Your task to perform on an android device: When is my next meeting? Image 0: 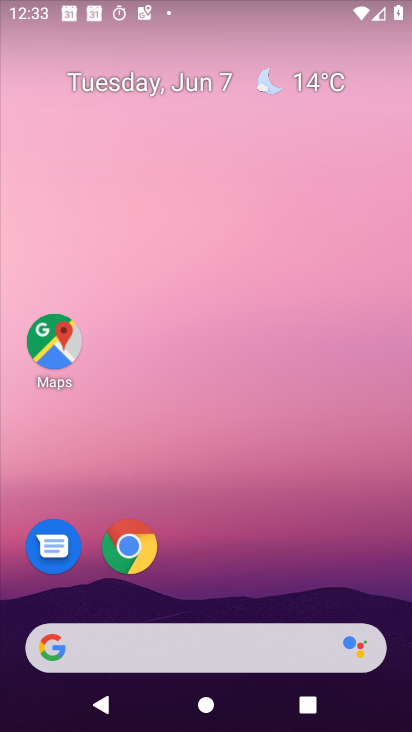
Step 0: drag from (230, 545) to (321, 125)
Your task to perform on an android device: When is my next meeting? Image 1: 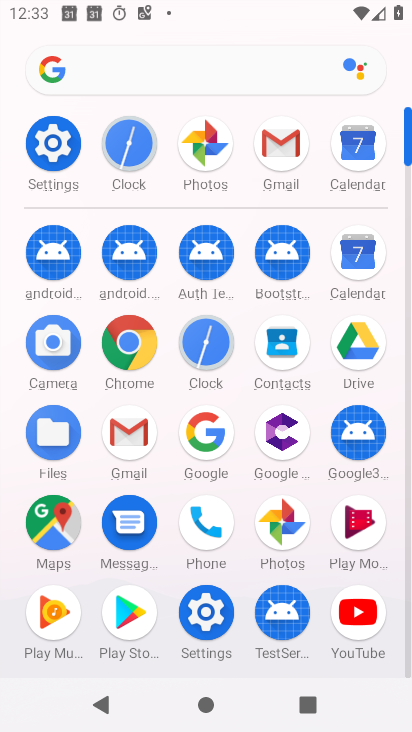
Step 1: click (376, 251)
Your task to perform on an android device: When is my next meeting? Image 2: 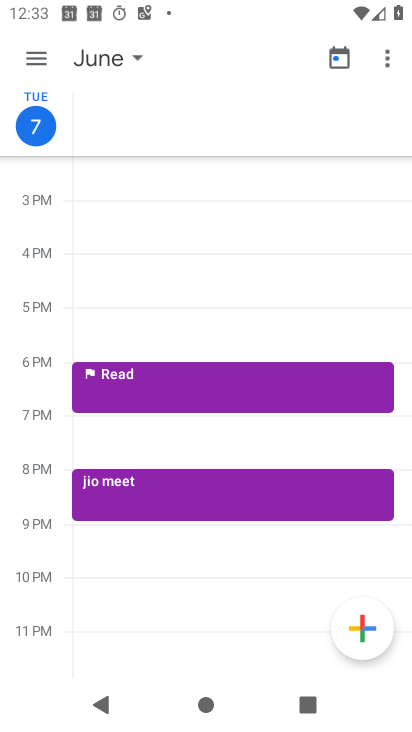
Step 2: click (372, 259)
Your task to perform on an android device: When is my next meeting? Image 3: 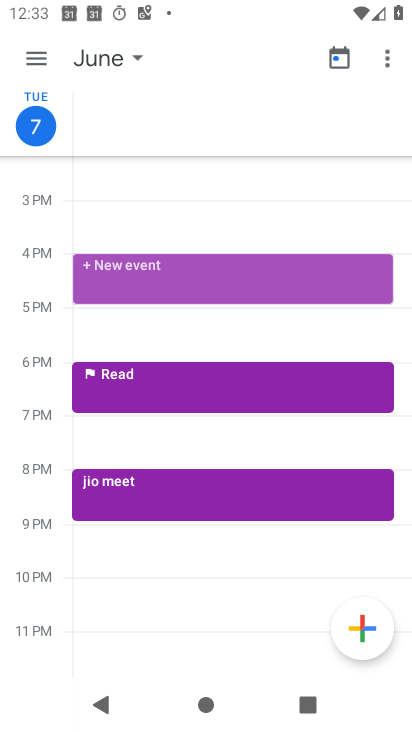
Step 3: click (42, 58)
Your task to perform on an android device: When is my next meeting? Image 4: 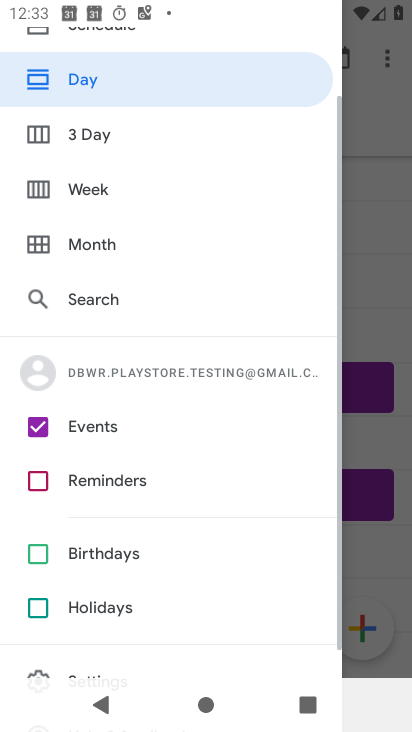
Step 4: drag from (94, 581) to (119, 540)
Your task to perform on an android device: When is my next meeting? Image 5: 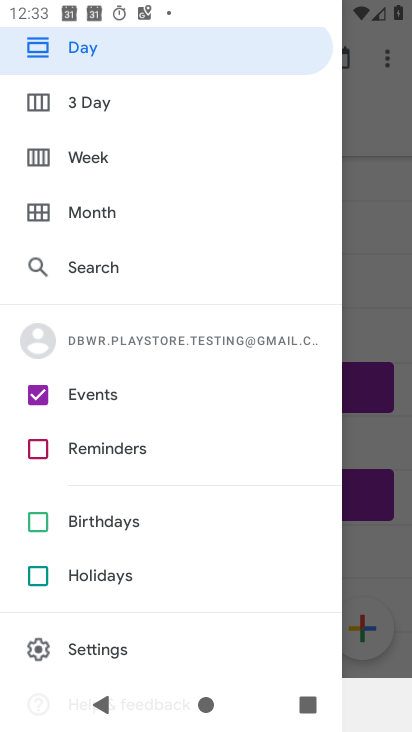
Step 5: click (88, 461)
Your task to perform on an android device: When is my next meeting? Image 6: 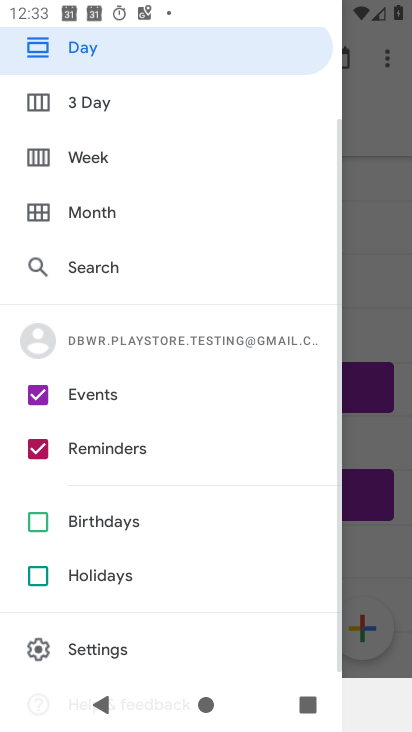
Step 6: drag from (113, 113) to (98, 291)
Your task to perform on an android device: When is my next meeting? Image 7: 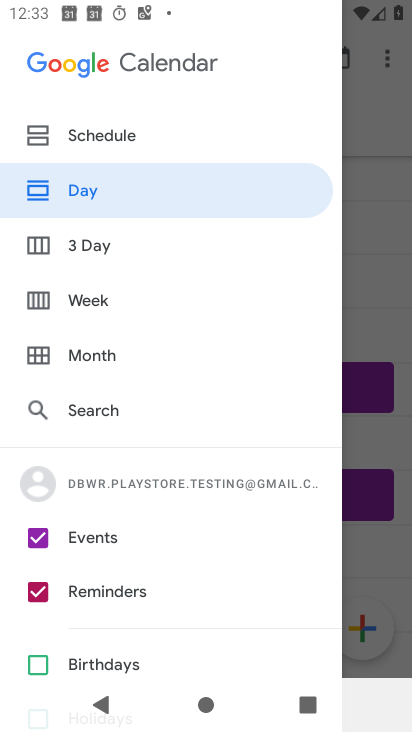
Step 7: click (108, 129)
Your task to perform on an android device: When is my next meeting? Image 8: 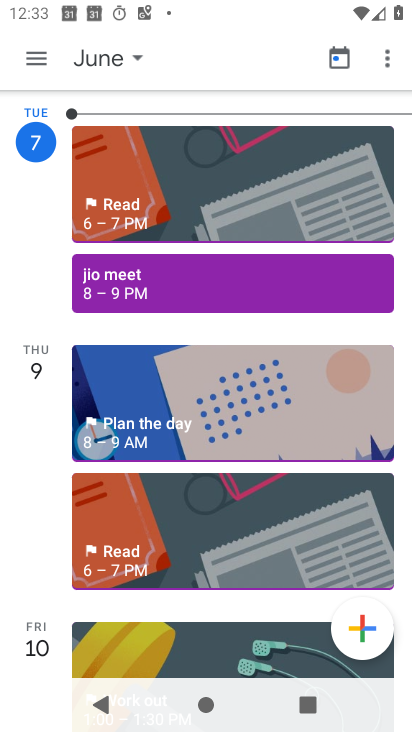
Step 8: drag from (197, 437) to (174, 462)
Your task to perform on an android device: When is my next meeting? Image 9: 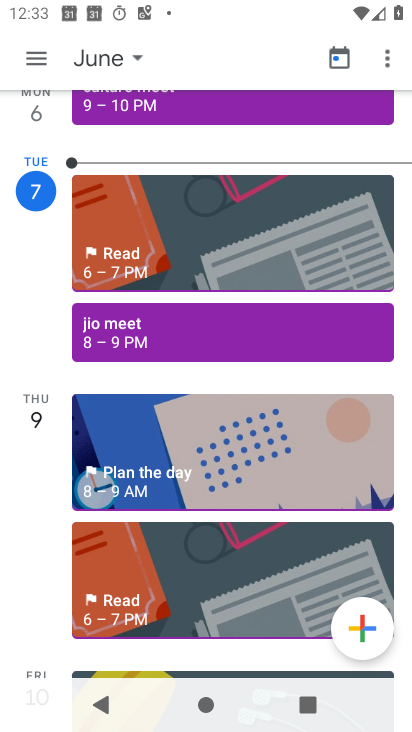
Step 9: click (146, 336)
Your task to perform on an android device: When is my next meeting? Image 10: 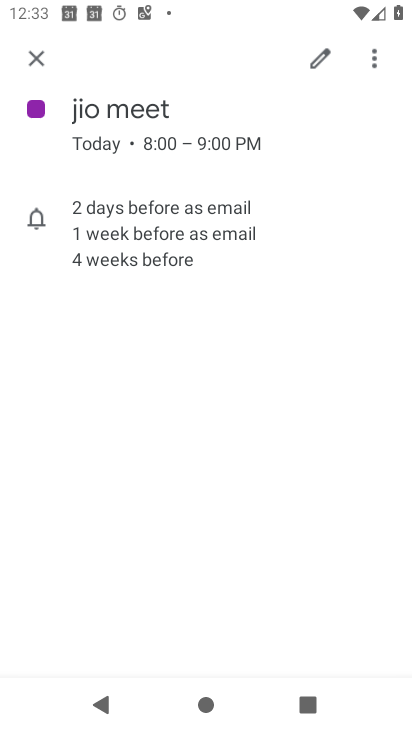
Step 10: task complete